Your task to perform on an android device: change the clock style Image 0: 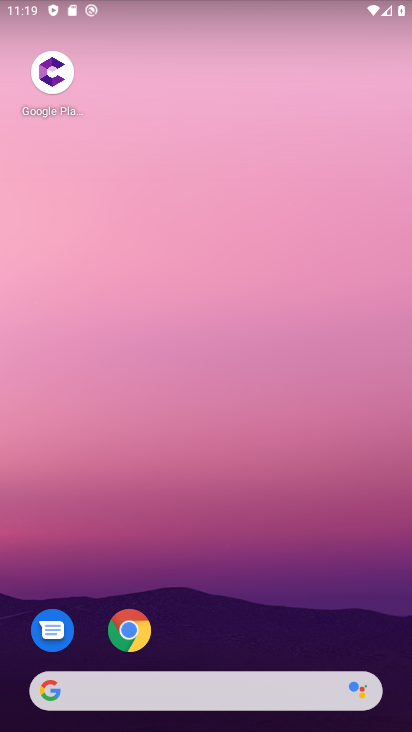
Step 0: drag from (57, 589) to (261, 92)
Your task to perform on an android device: change the clock style Image 1: 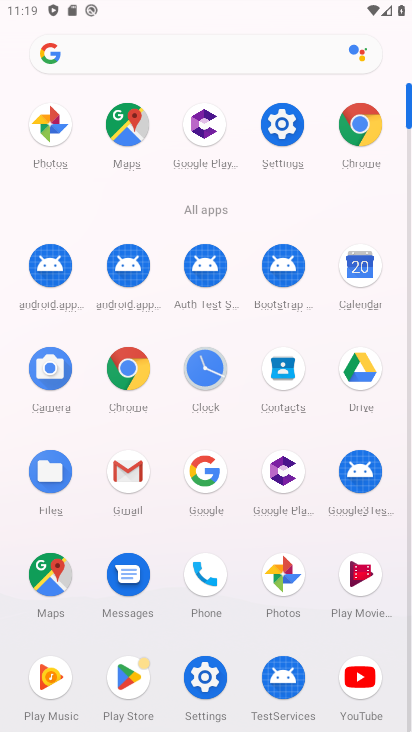
Step 1: click (211, 368)
Your task to perform on an android device: change the clock style Image 2: 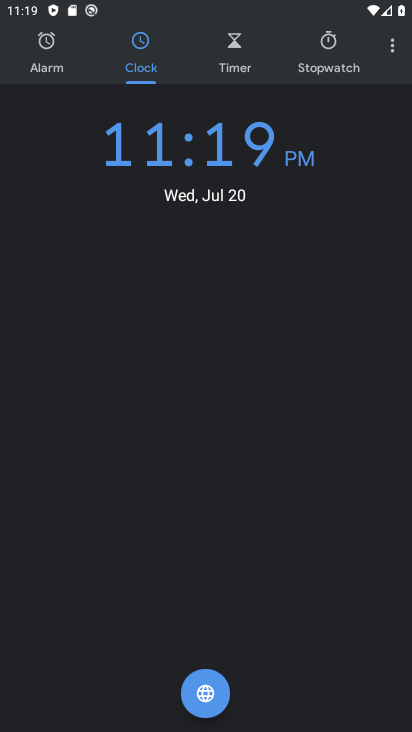
Step 2: click (394, 44)
Your task to perform on an android device: change the clock style Image 3: 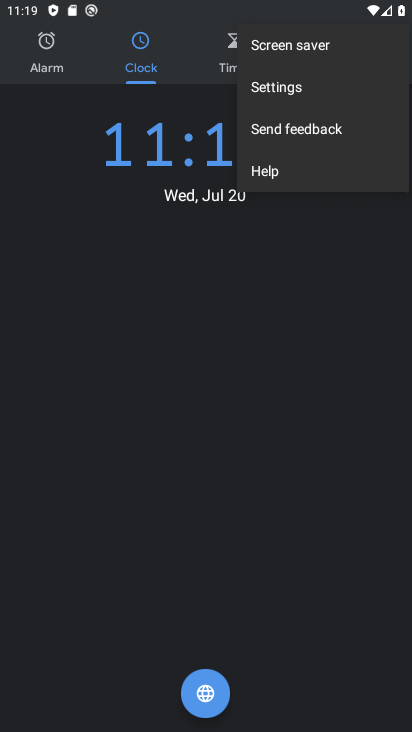
Step 3: click (282, 94)
Your task to perform on an android device: change the clock style Image 4: 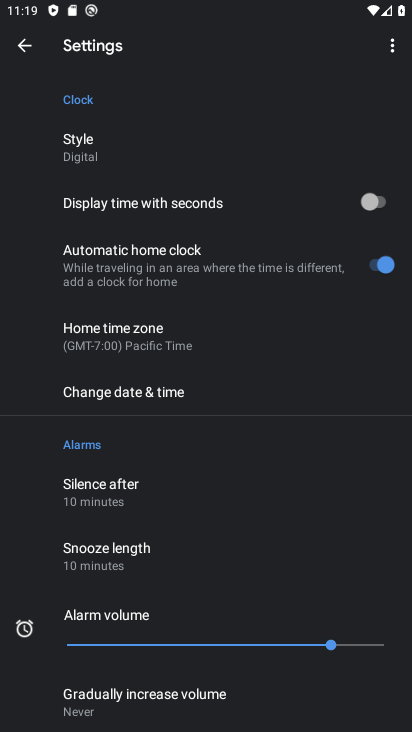
Step 4: click (98, 153)
Your task to perform on an android device: change the clock style Image 5: 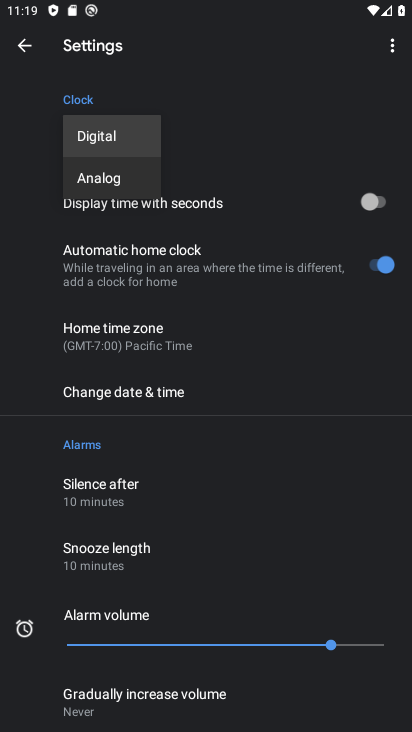
Step 5: click (107, 176)
Your task to perform on an android device: change the clock style Image 6: 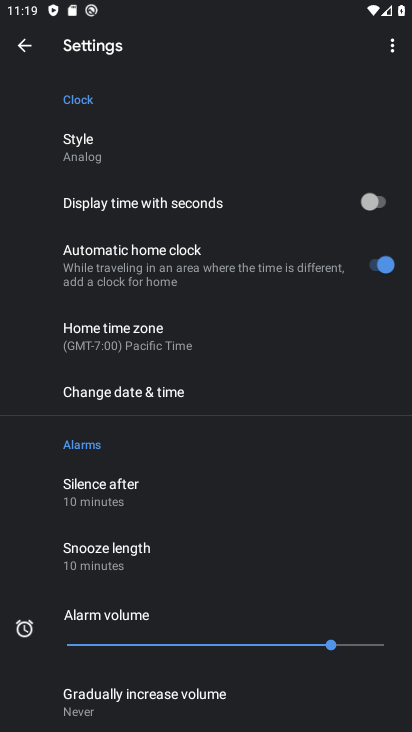
Step 6: task complete